Your task to perform on an android device: stop showing notifications on the lock screen Image 0: 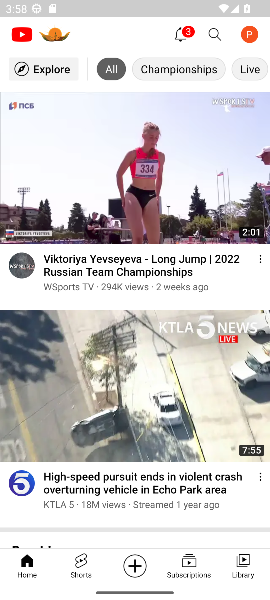
Step 0: press home button
Your task to perform on an android device: stop showing notifications on the lock screen Image 1: 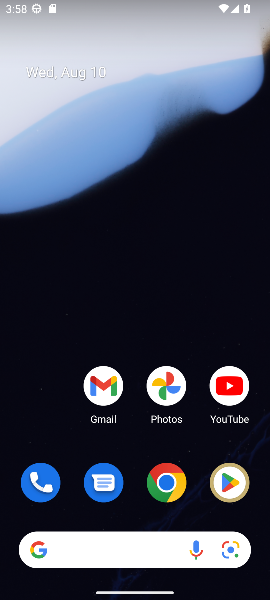
Step 1: drag from (130, 309) to (218, 0)
Your task to perform on an android device: stop showing notifications on the lock screen Image 2: 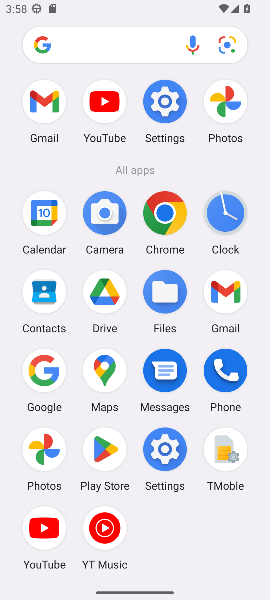
Step 2: click (172, 90)
Your task to perform on an android device: stop showing notifications on the lock screen Image 3: 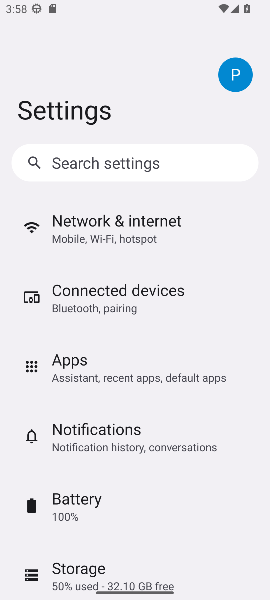
Step 3: click (140, 441)
Your task to perform on an android device: stop showing notifications on the lock screen Image 4: 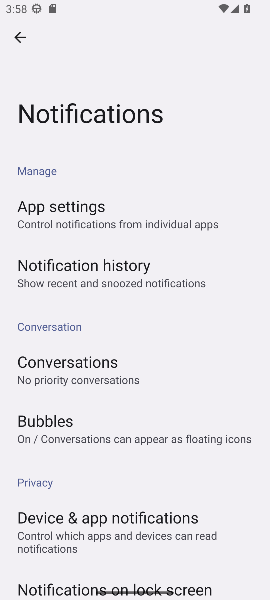
Step 4: drag from (138, 470) to (164, 14)
Your task to perform on an android device: stop showing notifications on the lock screen Image 5: 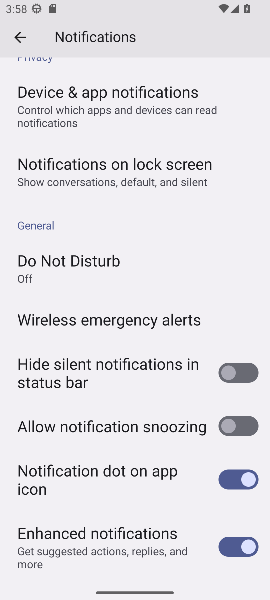
Step 5: click (151, 169)
Your task to perform on an android device: stop showing notifications on the lock screen Image 6: 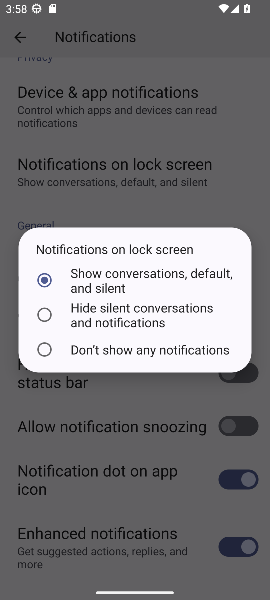
Step 6: click (117, 345)
Your task to perform on an android device: stop showing notifications on the lock screen Image 7: 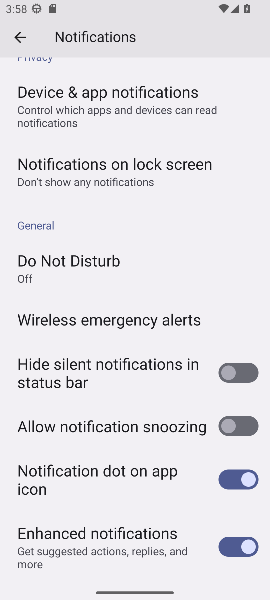
Step 7: task complete